Your task to perform on an android device: read, delete, or share a saved page in the chrome app Image 0: 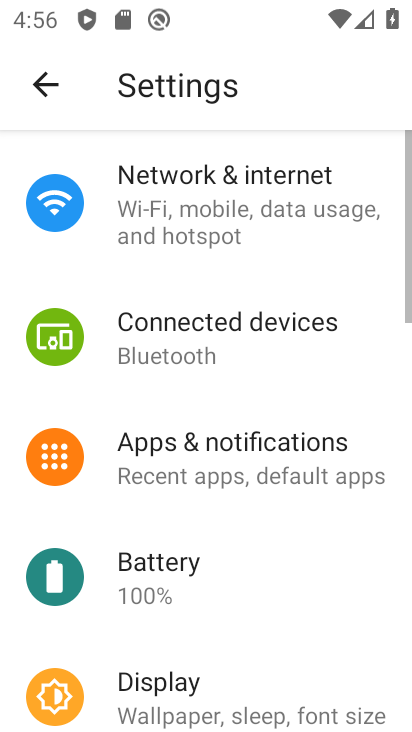
Step 0: press home button
Your task to perform on an android device: read, delete, or share a saved page in the chrome app Image 1: 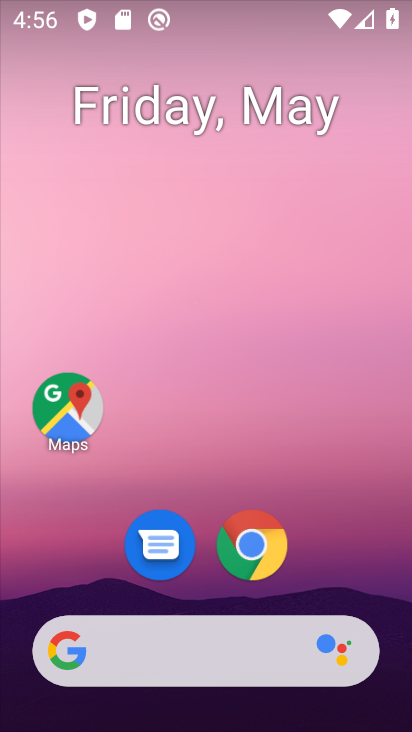
Step 1: click (245, 541)
Your task to perform on an android device: read, delete, or share a saved page in the chrome app Image 2: 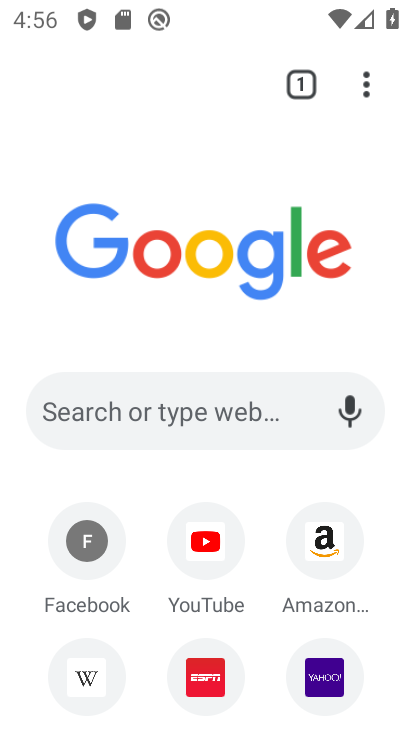
Step 2: click (360, 81)
Your task to perform on an android device: read, delete, or share a saved page in the chrome app Image 3: 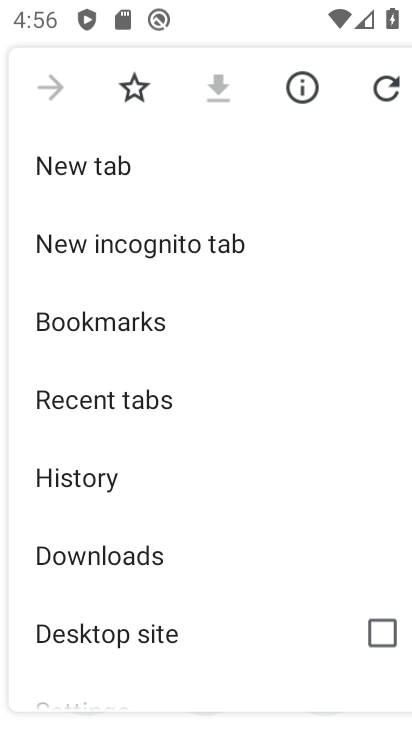
Step 3: click (66, 559)
Your task to perform on an android device: read, delete, or share a saved page in the chrome app Image 4: 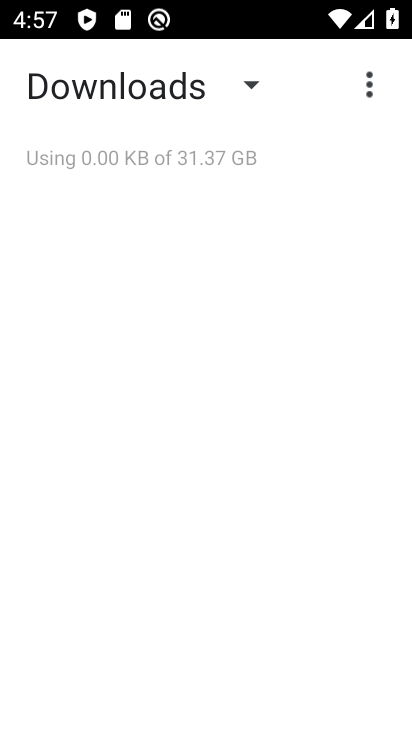
Step 4: task complete